Your task to perform on an android device: toggle location history Image 0: 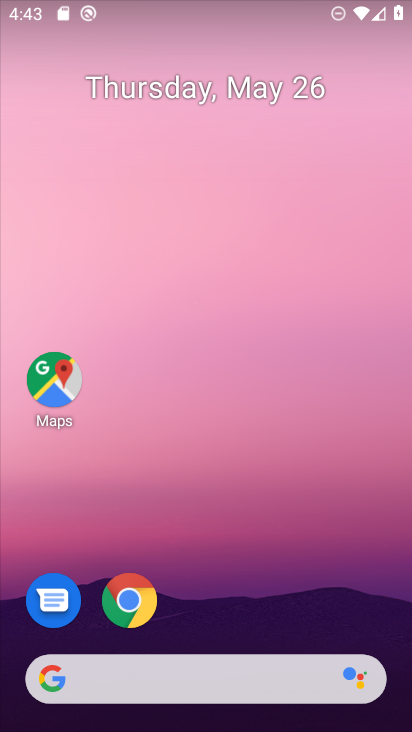
Step 0: drag from (216, 629) to (281, 103)
Your task to perform on an android device: toggle location history Image 1: 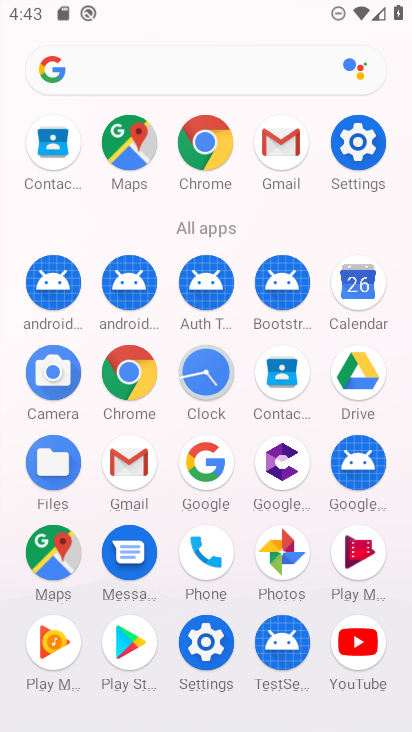
Step 1: click (369, 172)
Your task to perform on an android device: toggle location history Image 2: 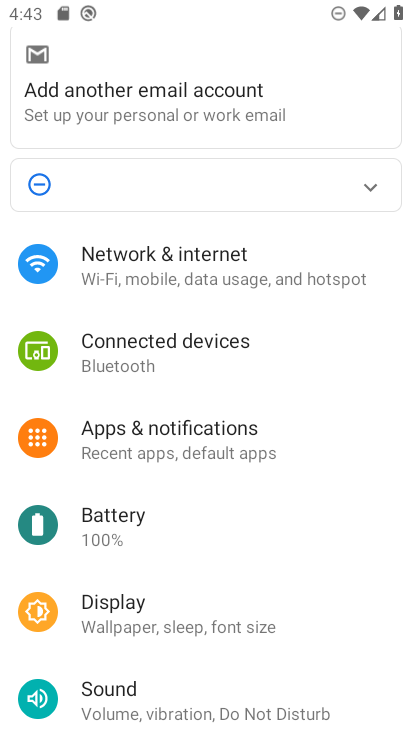
Step 2: drag from (190, 582) to (199, 260)
Your task to perform on an android device: toggle location history Image 3: 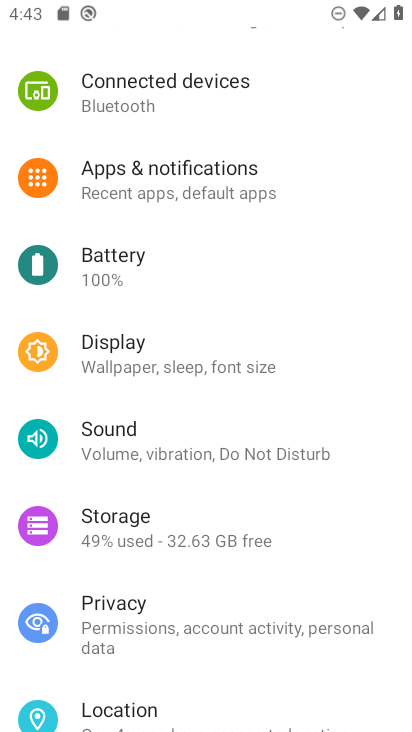
Step 3: drag from (155, 637) to (185, 365)
Your task to perform on an android device: toggle location history Image 4: 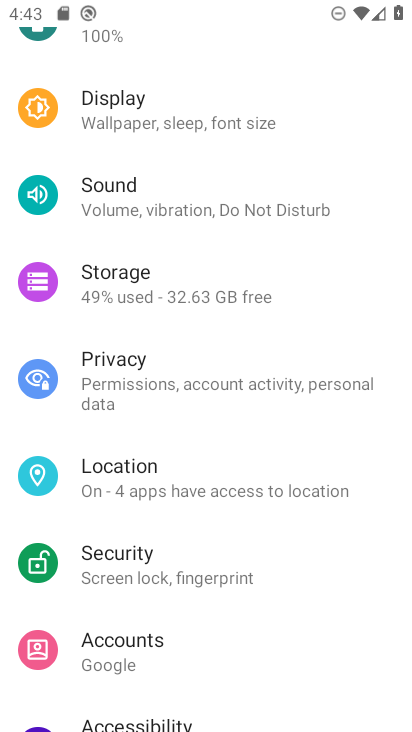
Step 4: click (156, 492)
Your task to perform on an android device: toggle location history Image 5: 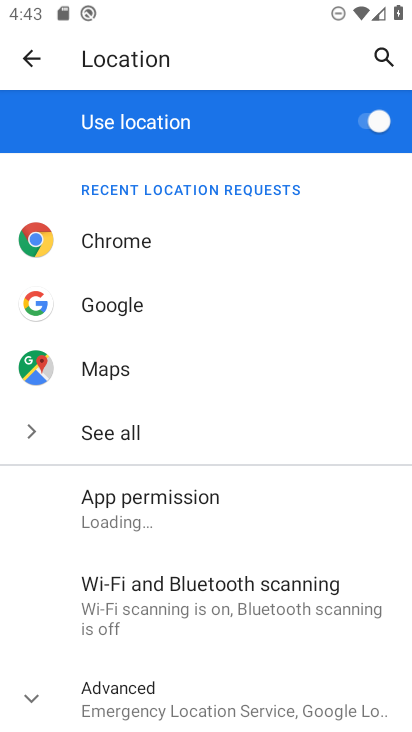
Step 5: drag from (181, 672) to (186, 461)
Your task to perform on an android device: toggle location history Image 6: 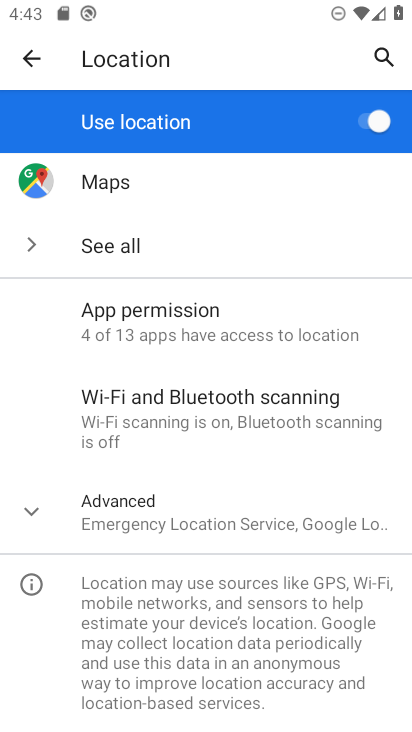
Step 6: click (135, 524)
Your task to perform on an android device: toggle location history Image 7: 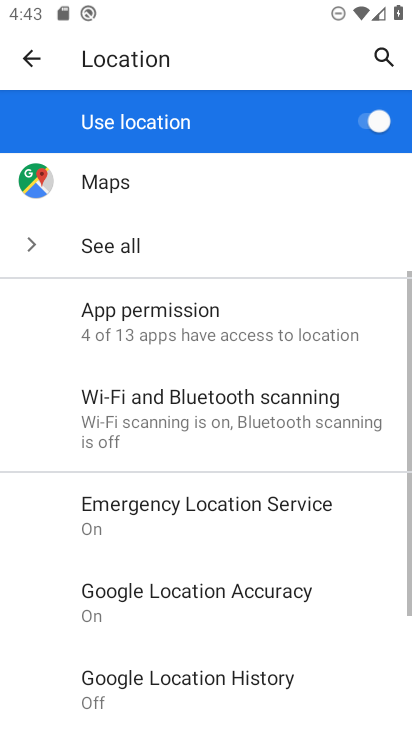
Step 7: drag from (139, 584) to (143, 507)
Your task to perform on an android device: toggle location history Image 8: 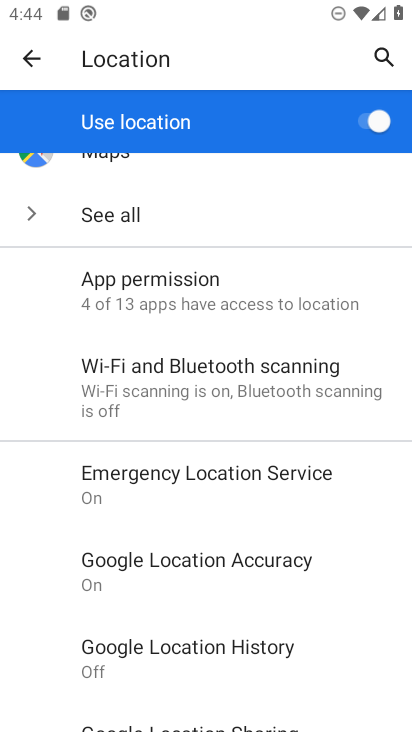
Step 8: click (149, 660)
Your task to perform on an android device: toggle location history Image 9: 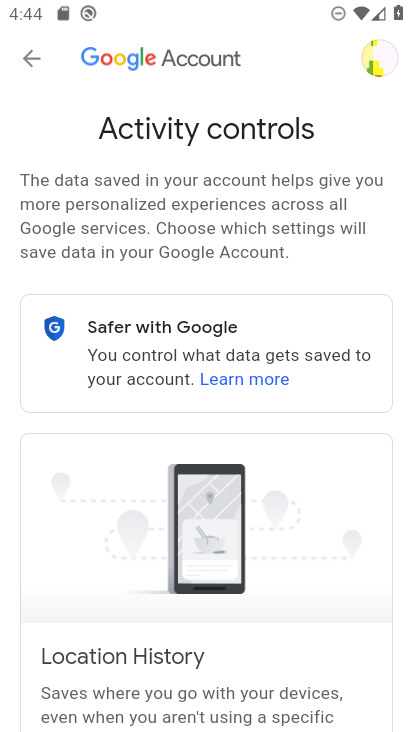
Step 9: drag from (224, 600) to (292, 176)
Your task to perform on an android device: toggle location history Image 10: 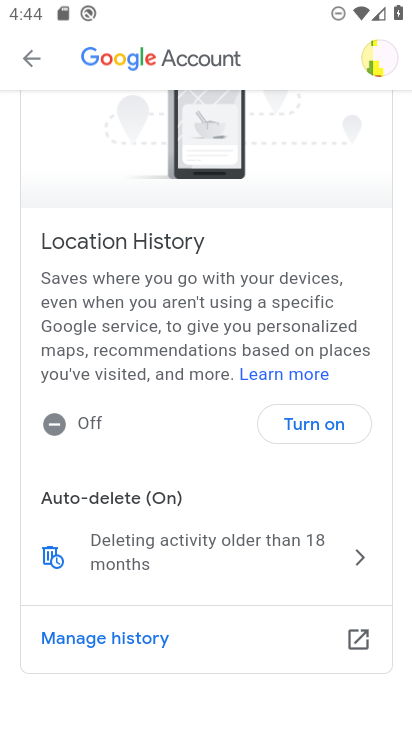
Step 10: click (326, 422)
Your task to perform on an android device: toggle location history Image 11: 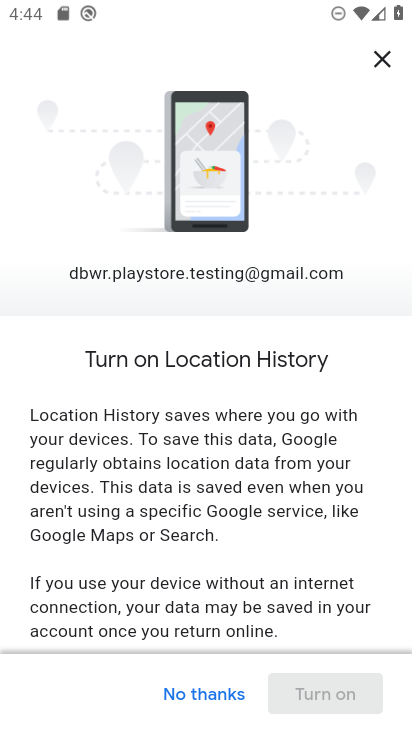
Step 11: drag from (276, 565) to (292, 254)
Your task to perform on an android device: toggle location history Image 12: 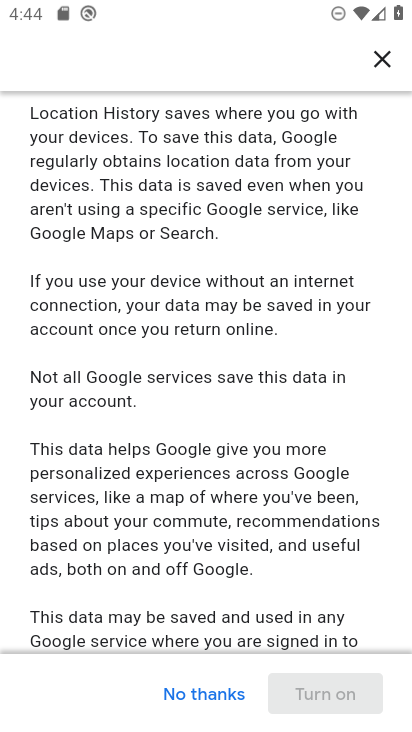
Step 12: drag from (247, 631) to (298, 309)
Your task to perform on an android device: toggle location history Image 13: 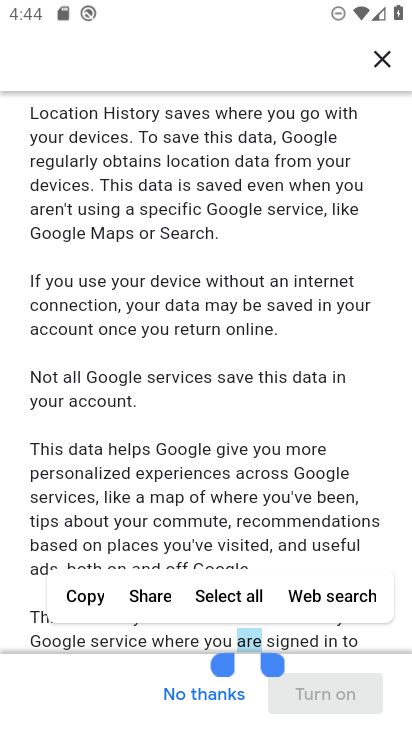
Step 13: click (280, 595)
Your task to perform on an android device: toggle location history Image 14: 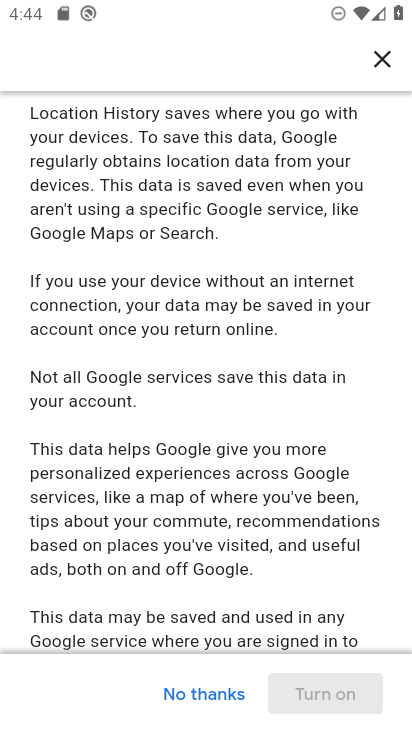
Step 14: drag from (306, 568) to (324, 169)
Your task to perform on an android device: toggle location history Image 15: 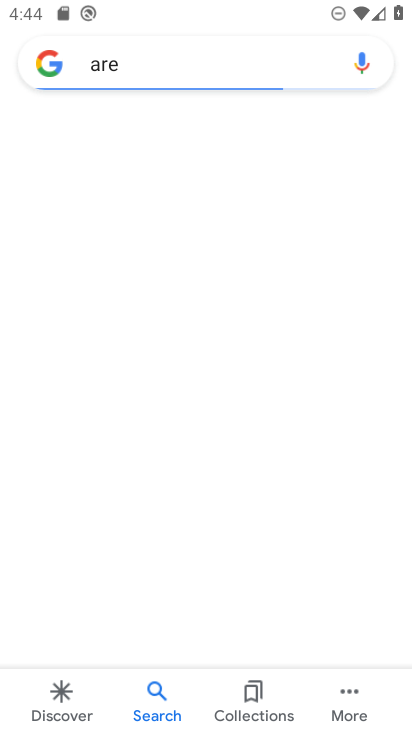
Step 15: press back button
Your task to perform on an android device: toggle location history Image 16: 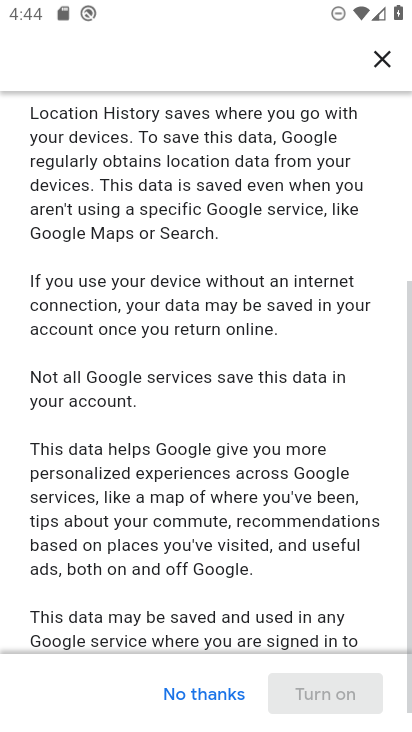
Step 16: drag from (156, 574) to (225, 62)
Your task to perform on an android device: toggle location history Image 17: 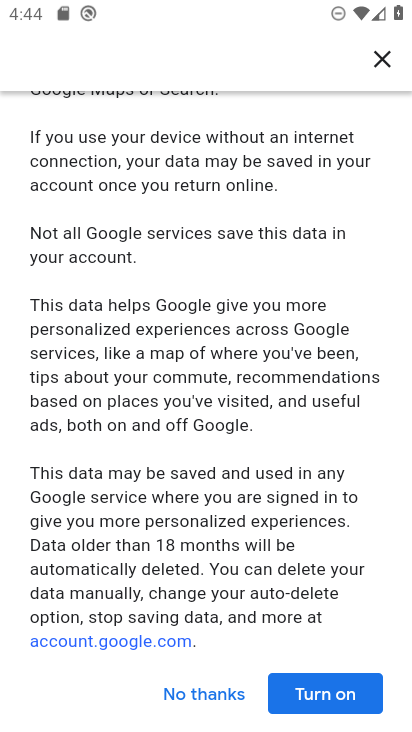
Step 17: drag from (237, 600) to (248, 279)
Your task to perform on an android device: toggle location history Image 18: 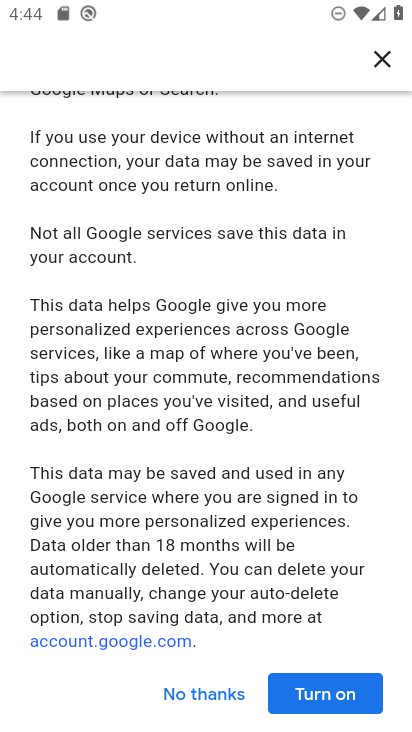
Step 18: click (321, 701)
Your task to perform on an android device: toggle location history Image 19: 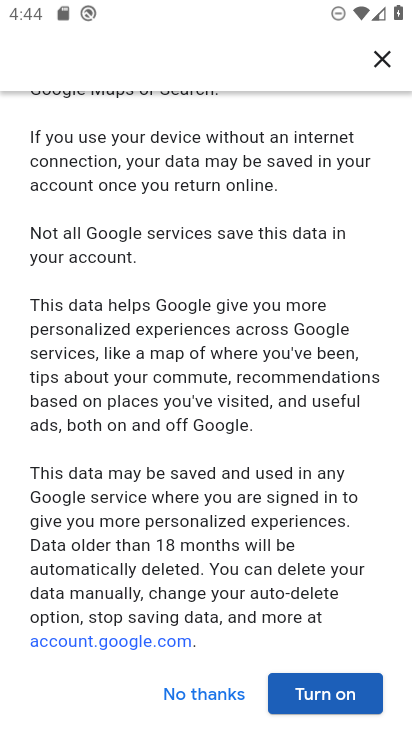
Step 19: click (325, 699)
Your task to perform on an android device: toggle location history Image 20: 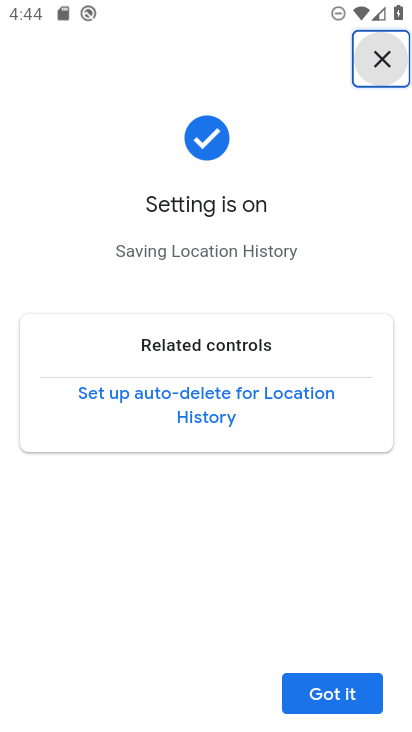
Step 20: click (327, 697)
Your task to perform on an android device: toggle location history Image 21: 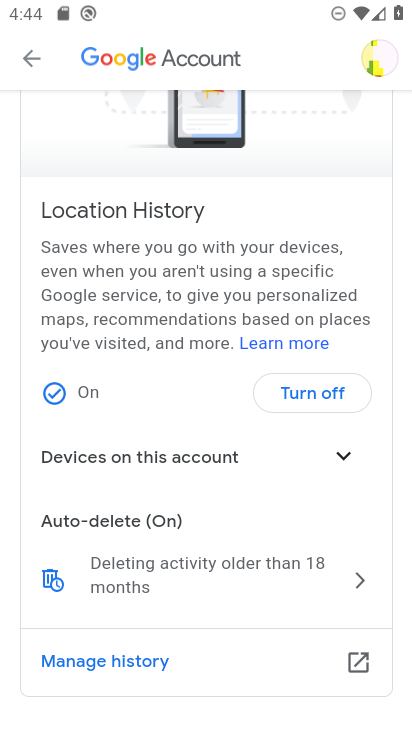
Step 21: task complete